Your task to perform on an android device: Open the phone app and click the voicemail tab. Image 0: 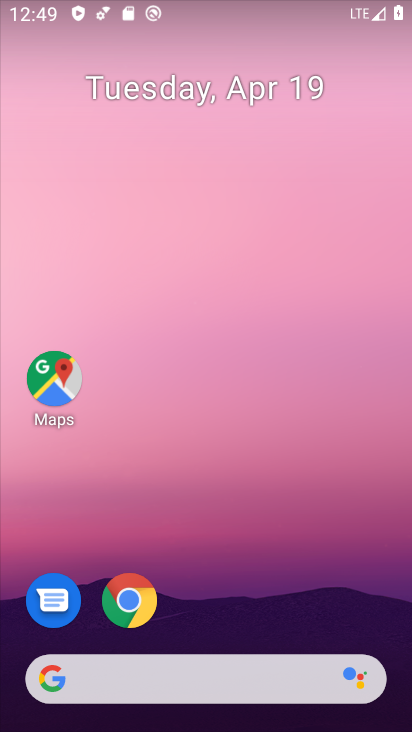
Step 0: drag from (256, 636) to (190, 3)
Your task to perform on an android device: Open the phone app and click the voicemail tab. Image 1: 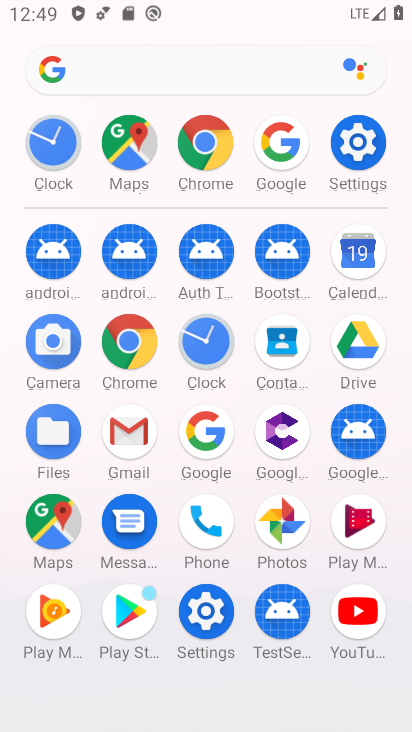
Step 1: click (205, 515)
Your task to perform on an android device: Open the phone app and click the voicemail tab. Image 2: 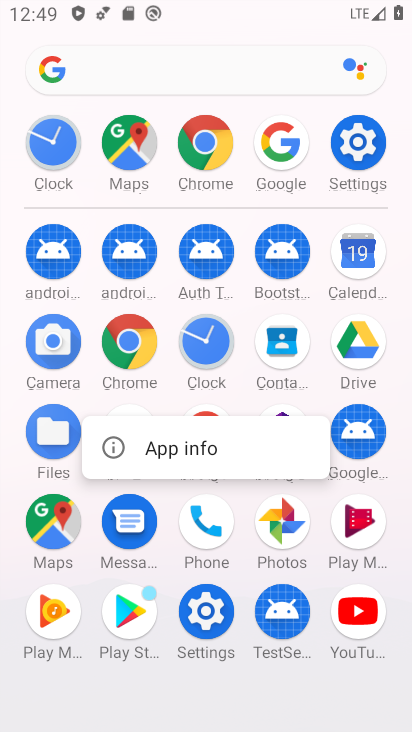
Step 2: click (205, 515)
Your task to perform on an android device: Open the phone app and click the voicemail tab. Image 3: 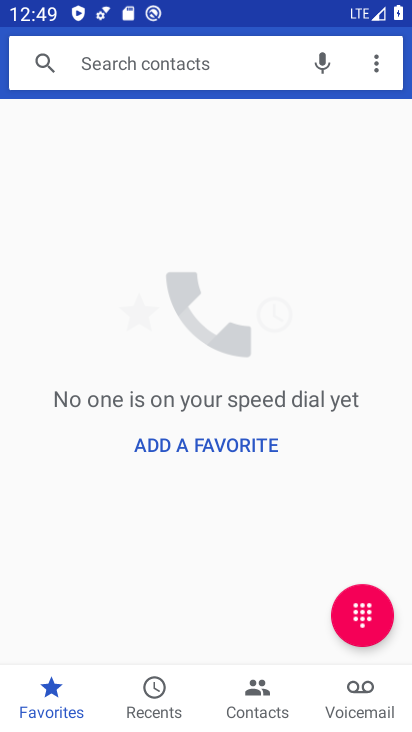
Step 3: click (362, 687)
Your task to perform on an android device: Open the phone app and click the voicemail tab. Image 4: 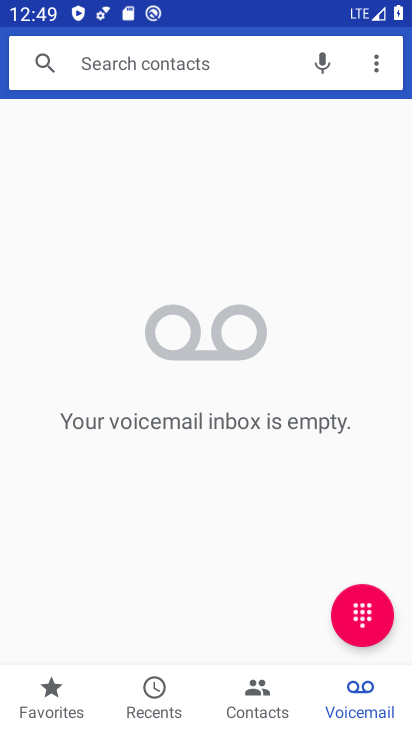
Step 4: task complete